Your task to perform on an android device: open the mobile data screen to see how much data has been used Image 0: 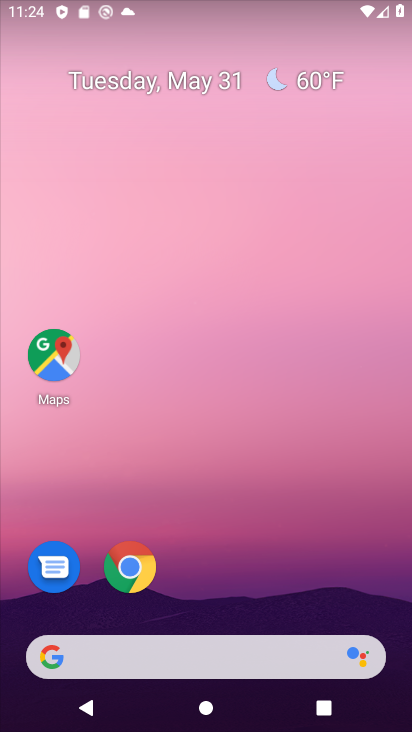
Step 0: drag from (158, 650) to (107, 129)
Your task to perform on an android device: open the mobile data screen to see how much data has been used Image 1: 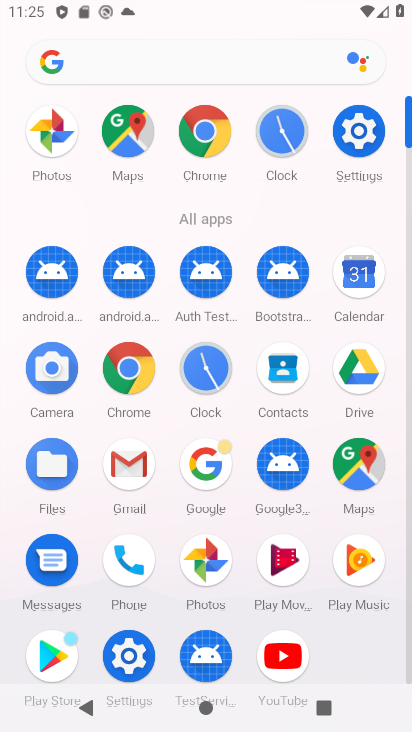
Step 1: click (366, 160)
Your task to perform on an android device: open the mobile data screen to see how much data has been used Image 2: 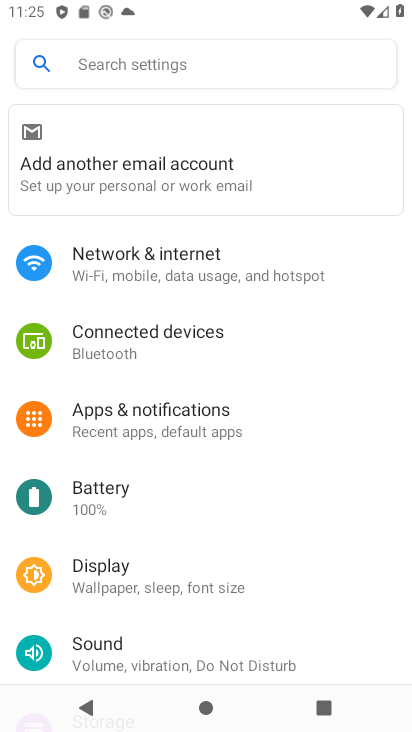
Step 2: click (161, 262)
Your task to perform on an android device: open the mobile data screen to see how much data has been used Image 3: 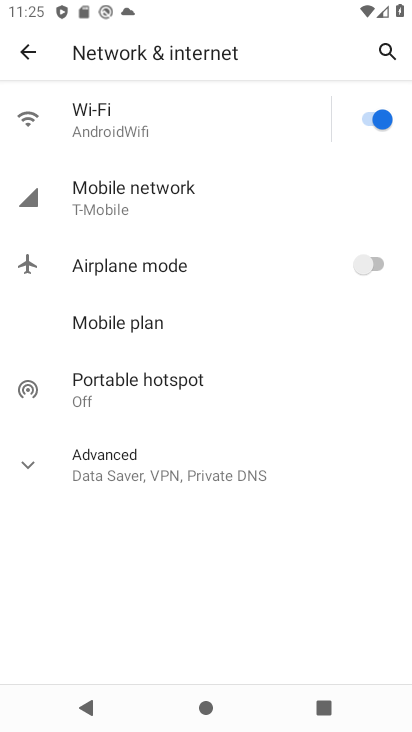
Step 3: click (152, 193)
Your task to perform on an android device: open the mobile data screen to see how much data has been used Image 4: 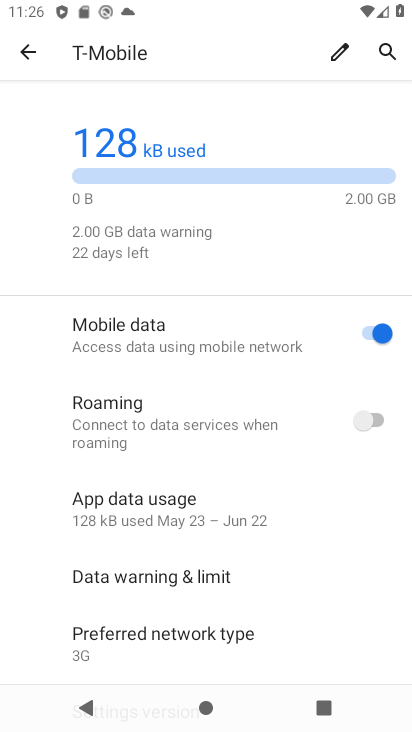
Step 4: task complete